Your task to perform on an android device: Search for vegetarian restaurants on Maps Image 0: 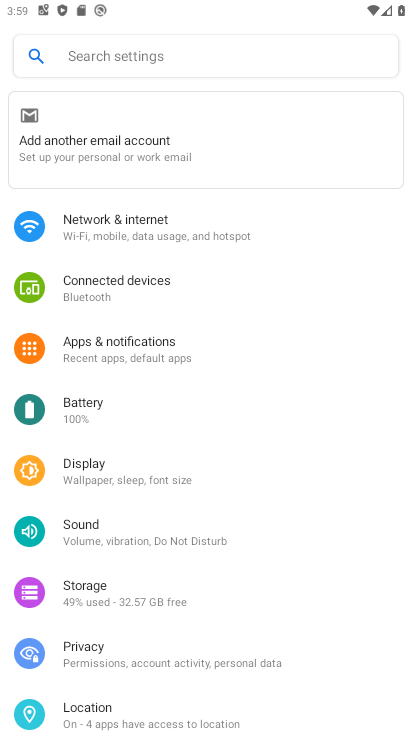
Step 0: press back button
Your task to perform on an android device: Search for vegetarian restaurants on Maps Image 1: 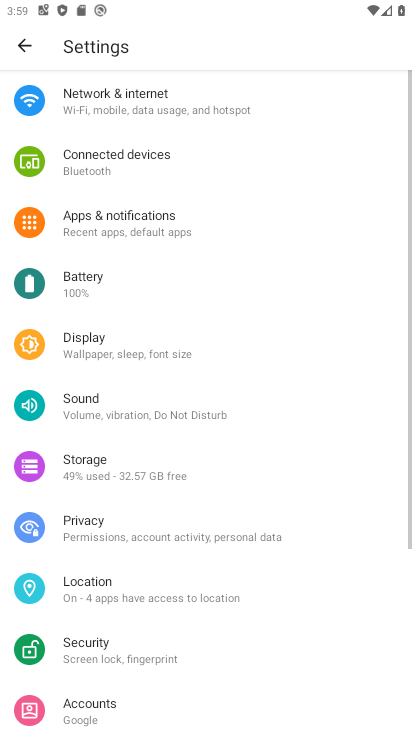
Step 1: press back button
Your task to perform on an android device: Search for vegetarian restaurants on Maps Image 2: 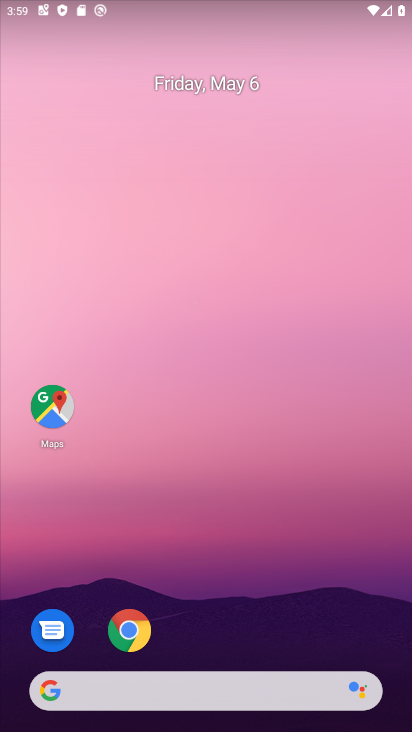
Step 2: click (47, 397)
Your task to perform on an android device: Search for vegetarian restaurants on Maps Image 3: 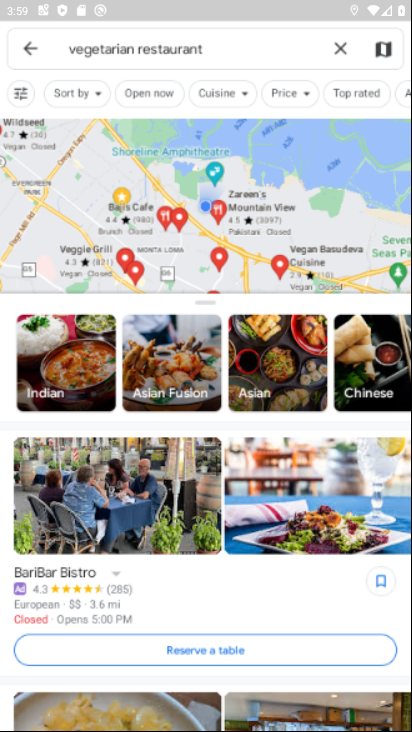
Step 3: click (334, 49)
Your task to perform on an android device: Search for vegetarian restaurants on Maps Image 4: 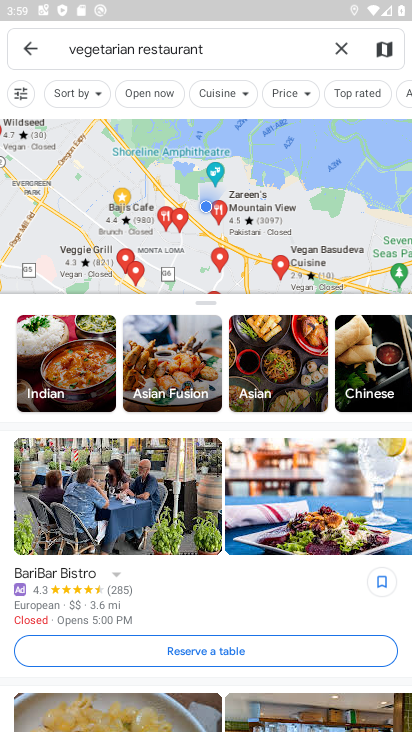
Step 4: click (342, 44)
Your task to perform on an android device: Search for vegetarian restaurants on Maps Image 5: 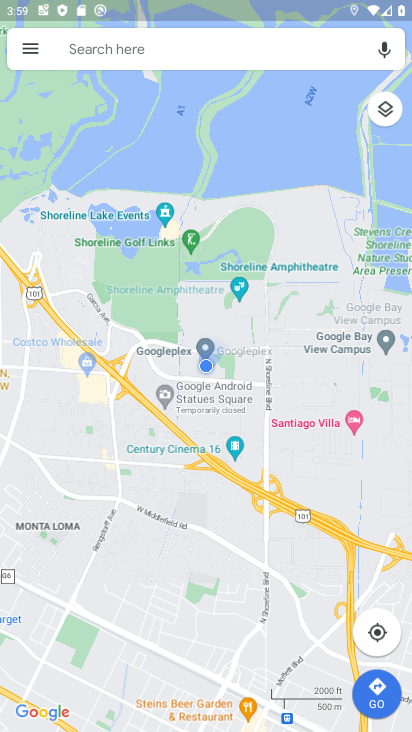
Step 5: click (116, 47)
Your task to perform on an android device: Search for vegetarian restaurants on Maps Image 6: 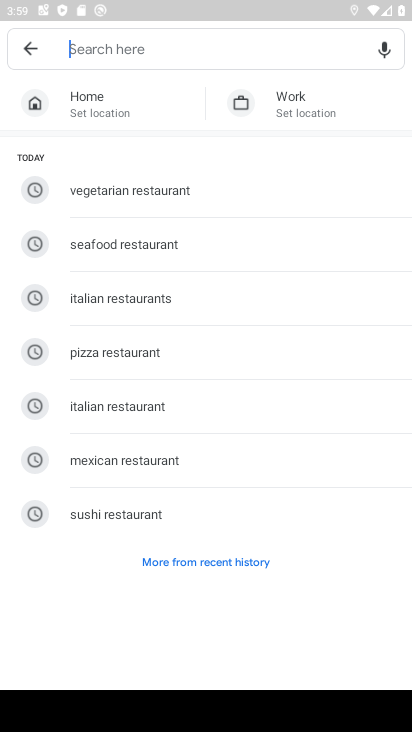
Step 6: click (94, 46)
Your task to perform on an android device: Search for vegetarian restaurants on Maps Image 7: 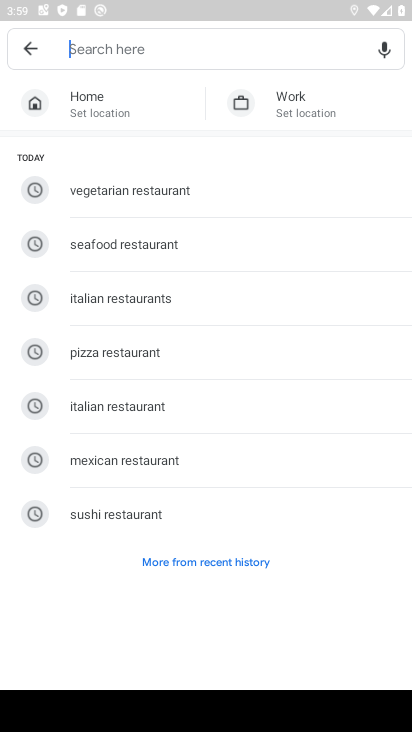
Step 7: click (88, 190)
Your task to perform on an android device: Search for vegetarian restaurants on Maps Image 8: 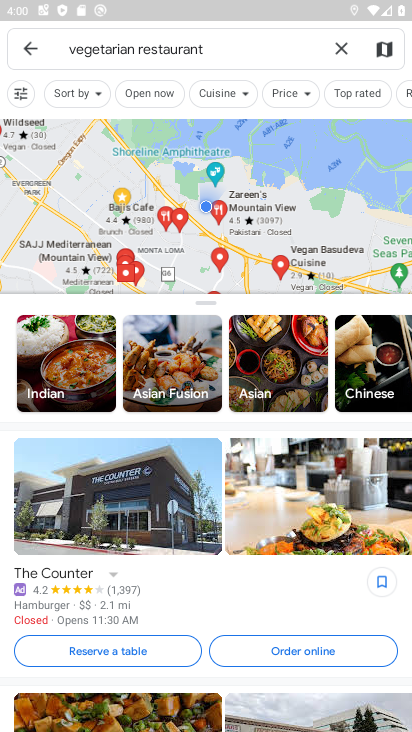
Step 8: task complete